Your task to perform on an android device: turn notification dots off Image 0: 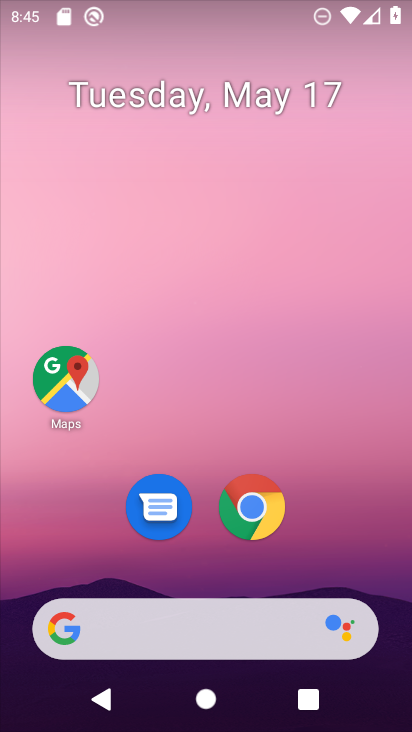
Step 0: drag from (378, 586) to (382, 21)
Your task to perform on an android device: turn notification dots off Image 1: 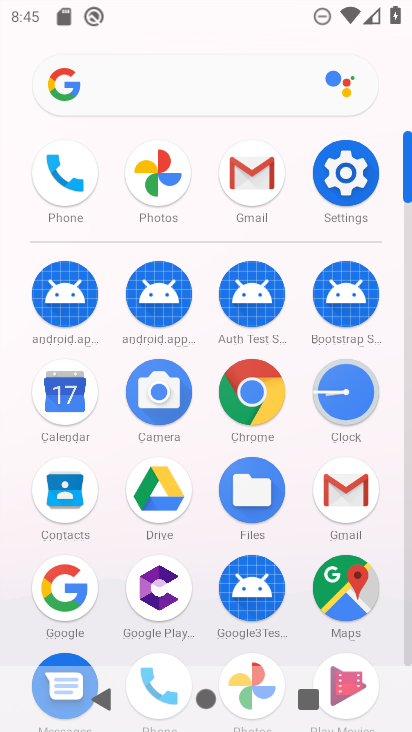
Step 1: click (351, 179)
Your task to perform on an android device: turn notification dots off Image 2: 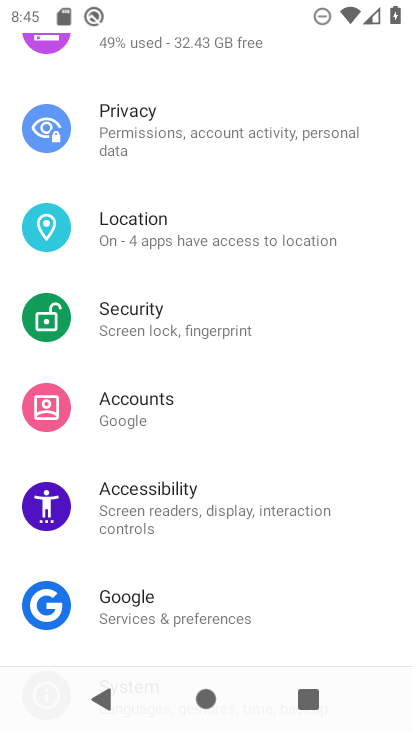
Step 2: drag from (274, 227) to (294, 482)
Your task to perform on an android device: turn notification dots off Image 3: 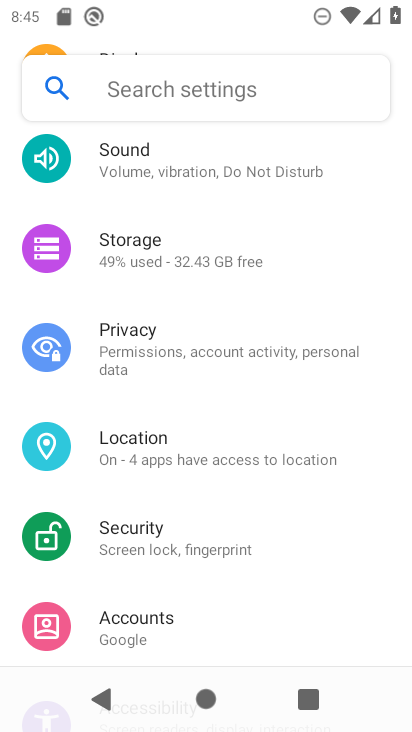
Step 3: drag from (267, 236) to (278, 515)
Your task to perform on an android device: turn notification dots off Image 4: 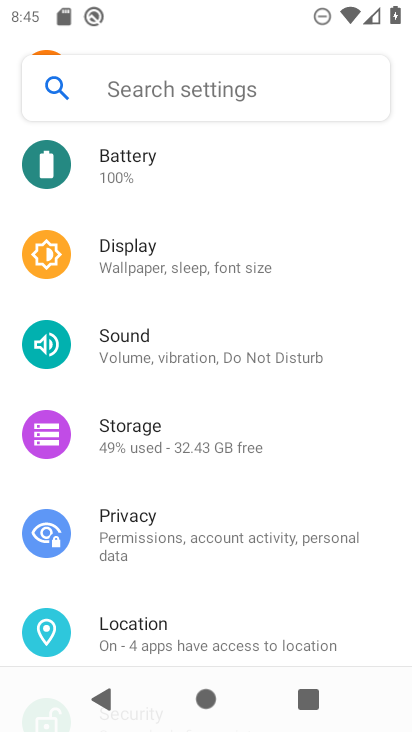
Step 4: drag from (260, 235) to (287, 506)
Your task to perform on an android device: turn notification dots off Image 5: 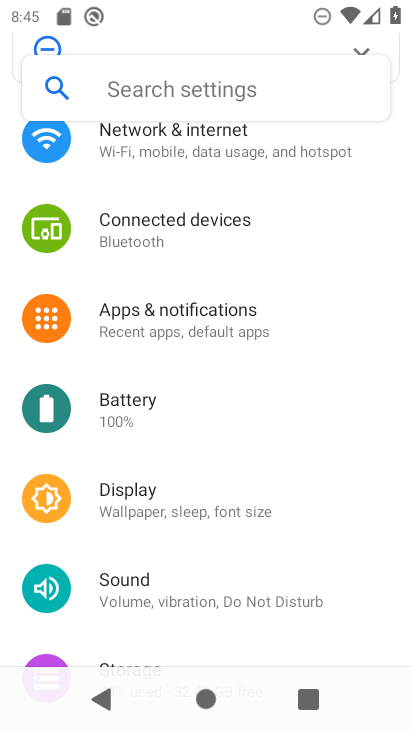
Step 5: click (165, 319)
Your task to perform on an android device: turn notification dots off Image 6: 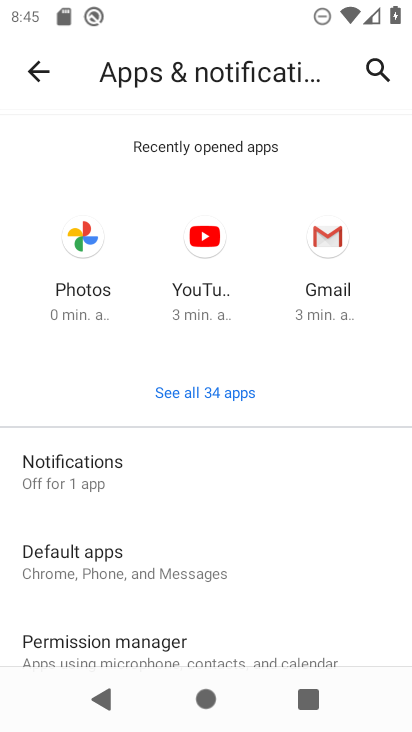
Step 6: click (84, 495)
Your task to perform on an android device: turn notification dots off Image 7: 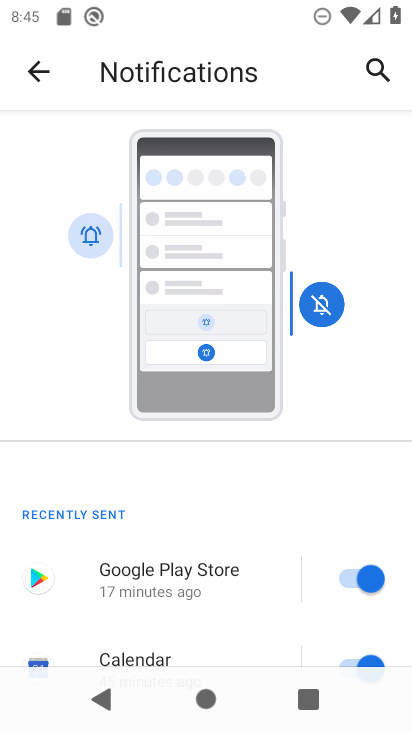
Step 7: drag from (215, 601) to (172, 101)
Your task to perform on an android device: turn notification dots off Image 8: 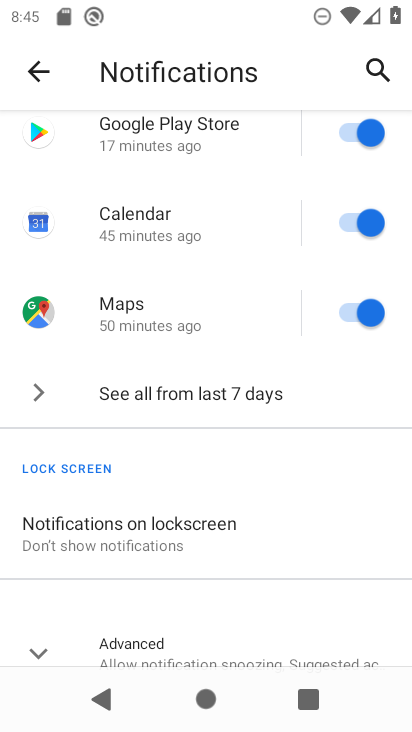
Step 8: drag from (220, 561) to (199, 253)
Your task to perform on an android device: turn notification dots off Image 9: 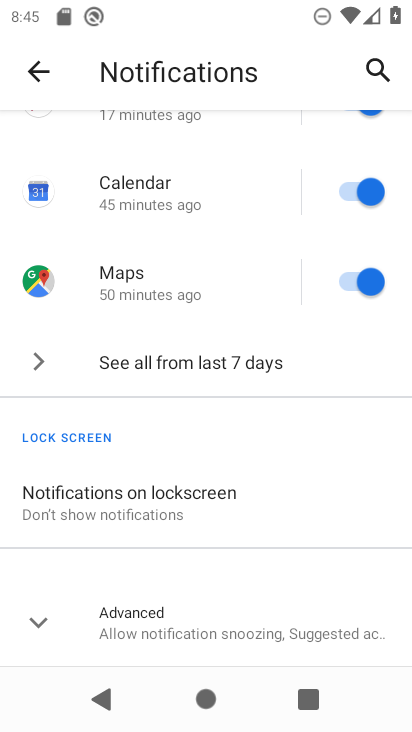
Step 9: click (37, 629)
Your task to perform on an android device: turn notification dots off Image 10: 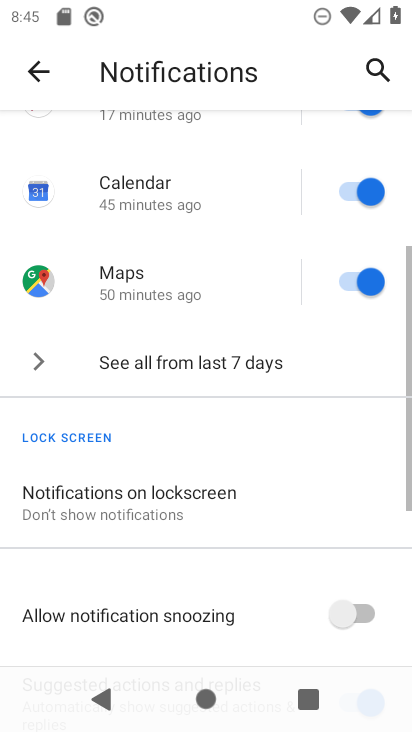
Step 10: task complete